Your task to perform on an android device: Open settings on Google Maps Image 0: 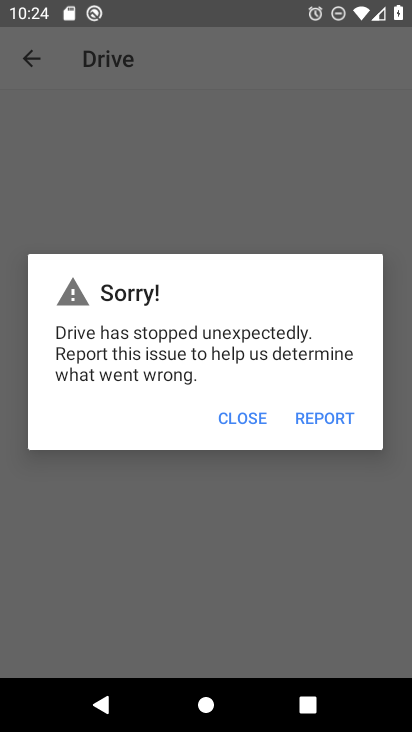
Step 0: press home button
Your task to perform on an android device: Open settings on Google Maps Image 1: 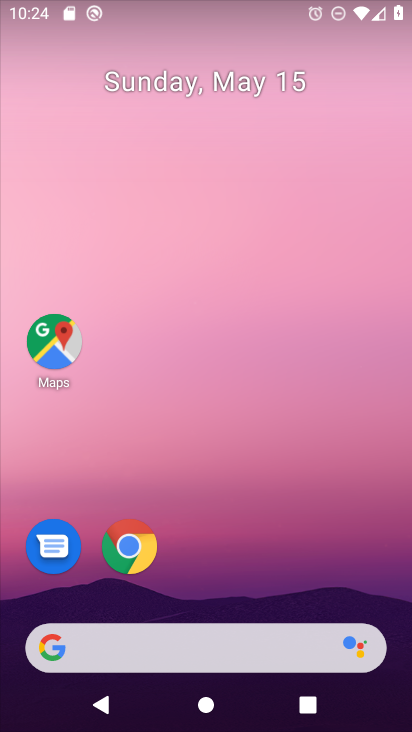
Step 1: click (20, 324)
Your task to perform on an android device: Open settings on Google Maps Image 2: 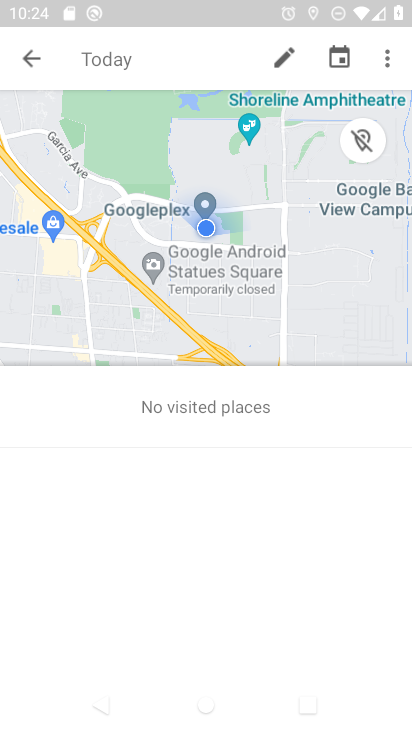
Step 2: click (39, 59)
Your task to perform on an android device: Open settings on Google Maps Image 3: 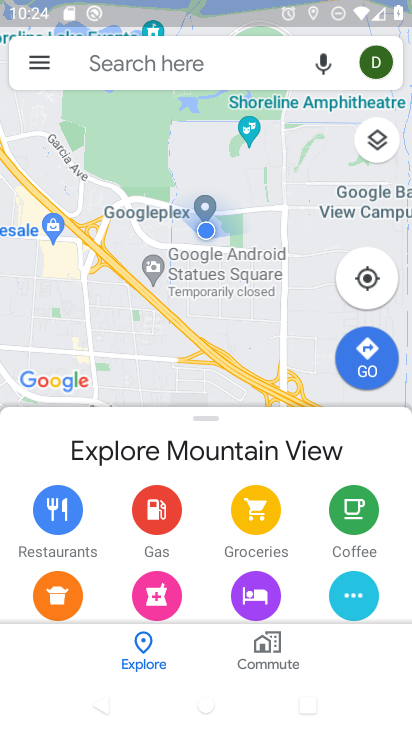
Step 3: click (35, 59)
Your task to perform on an android device: Open settings on Google Maps Image 4: 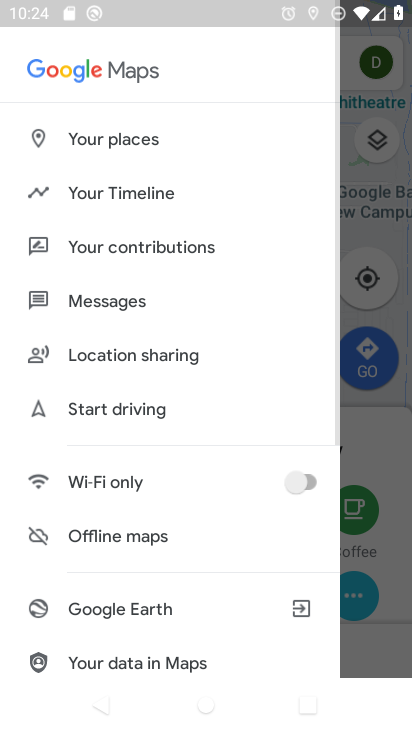
Step 4: drag from (190, 561) to (251, 167)
Your task to perform on an android device: Open settings on Google Maps Image 5: 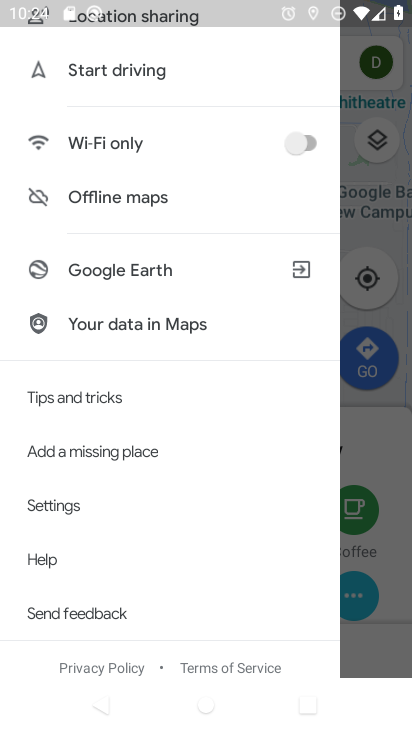
Step 5: click (74, 509)
Your task to perform on an android device: Open settings on Google Maps Image 6: 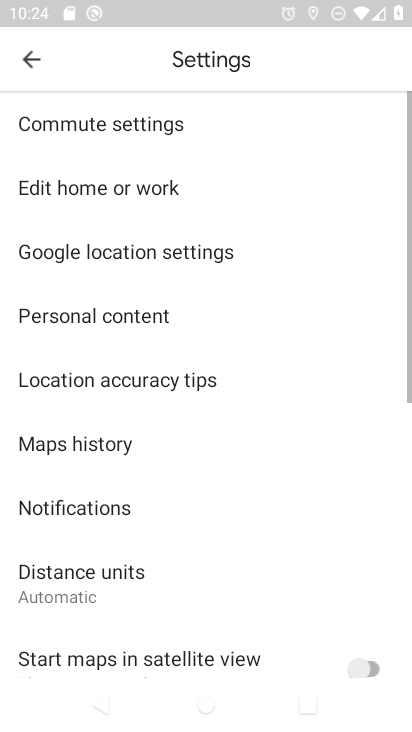
Step 6: task complete